Your task to perform on an android device: change the clock display to analog Image 0: 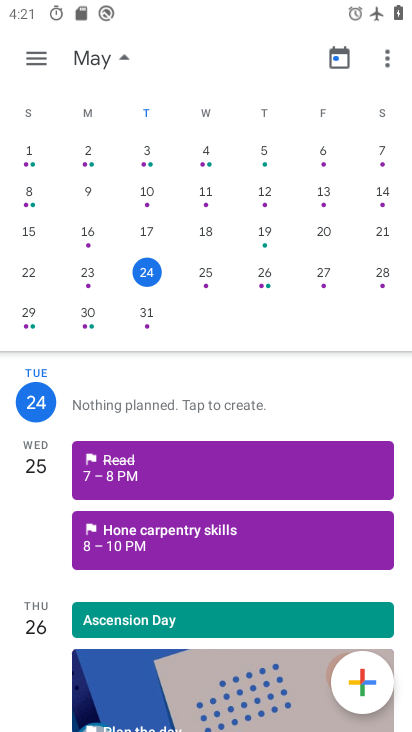
Step 0: press home button
Your task to perform on an android device: change the clock display to analog Image 1: 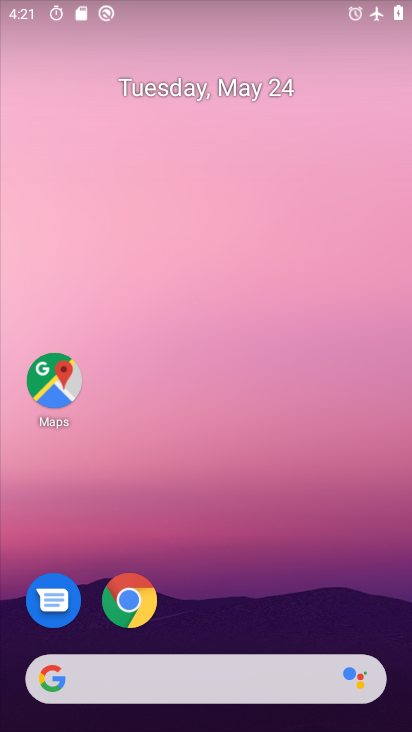
Step 1: drag from (203, 657) to (260, 0)
Your task to perform on an android device: change the clock display to analog Image 2: 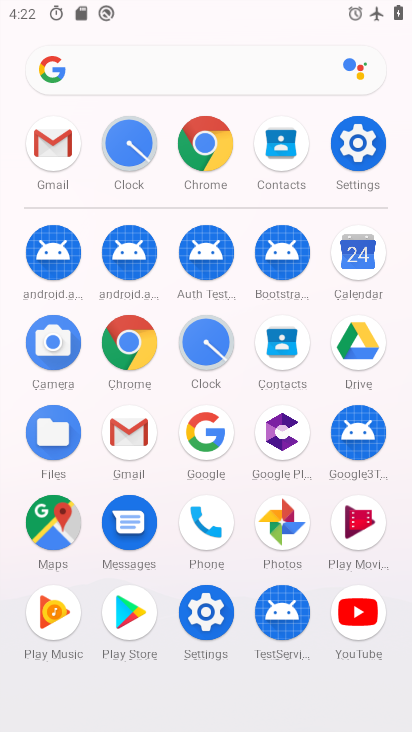
Step 2: click (208, 344)
Your task to perform on an android device: change the clock display to analog Image 3: 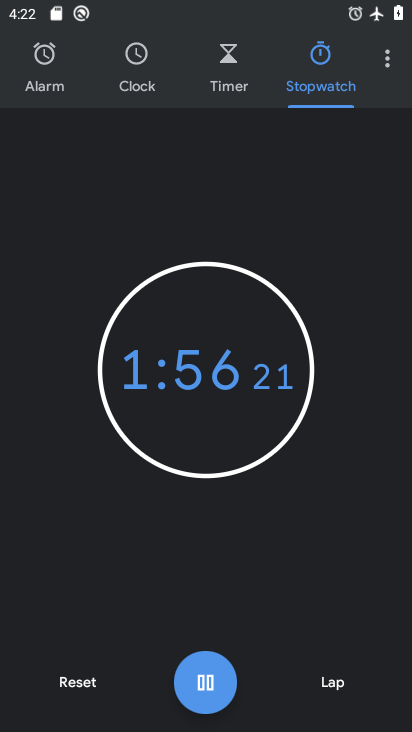
Step 3: click (379, 43)
Your task to perform on an android device: change the clock display to analog Image 4: 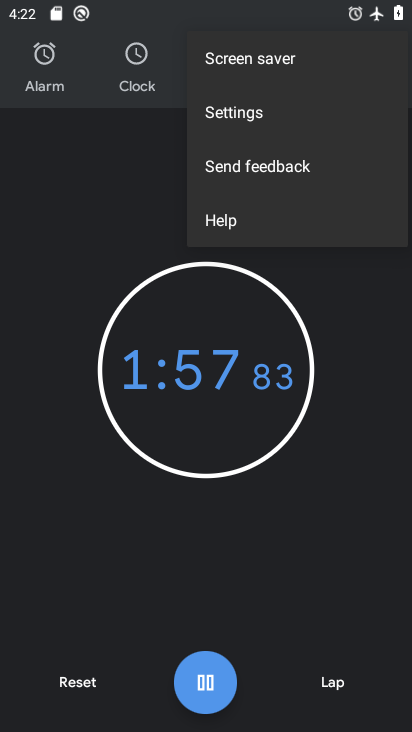
Step 4: click (272, 113)
Your task to perform on an android device: change the clock display to analog Image 5: 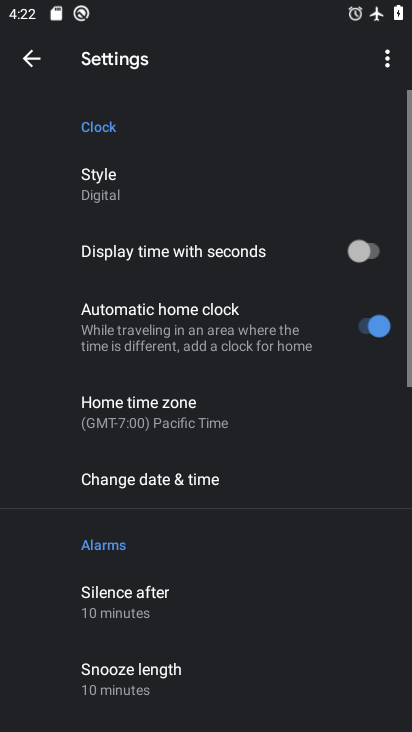
Step 5: click (118, 184)
Your task to perform on an android device: change the clock display to analog Image 6: 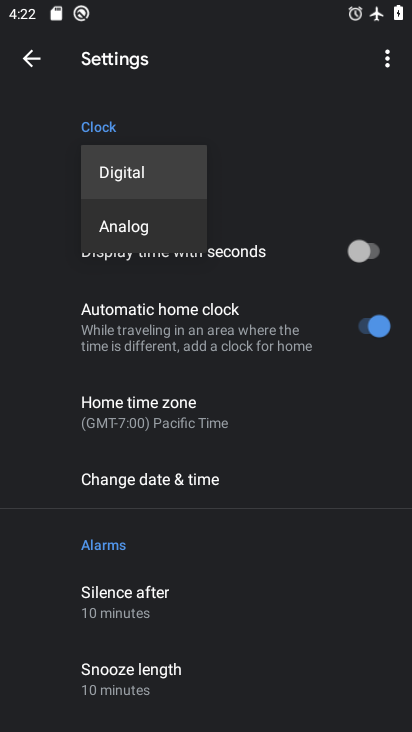
Step 6: click (112, 222)
Your task to perform on an android device: change the clock display to analog Image 7: 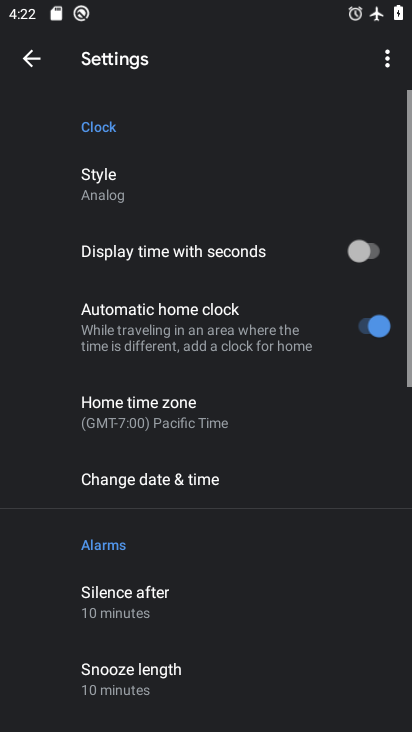
Step 7: task complete